Your task to perform on an android device: Go to eBay Image 0: 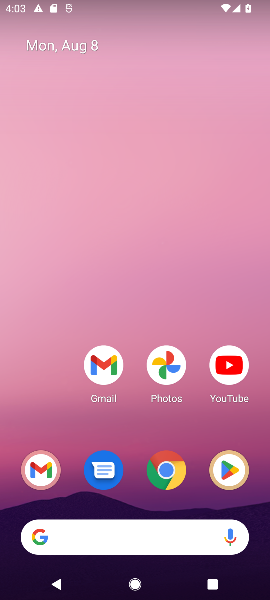
Step 0: press home button
Your task to perform on an android device: Go to eBay Image 1: 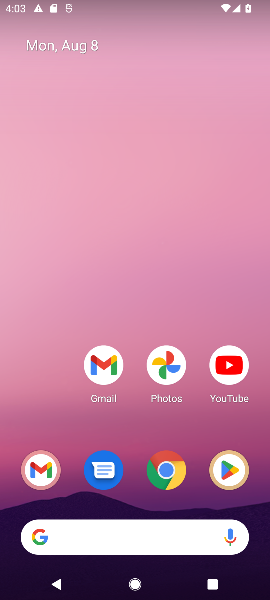
Step 1: drag from (58, 319) to (67, 130)
Your task to perform on an android device: Go to eBay Image 2: 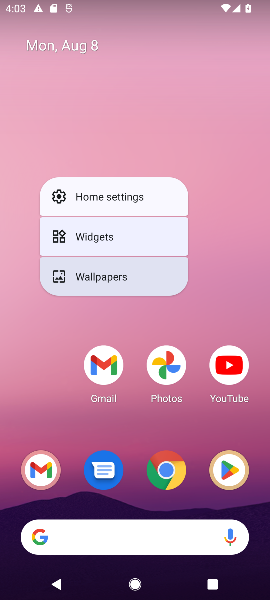
Step 2: click (245, 272)
Your task to perform on an android device: Go to eBay Image 3: 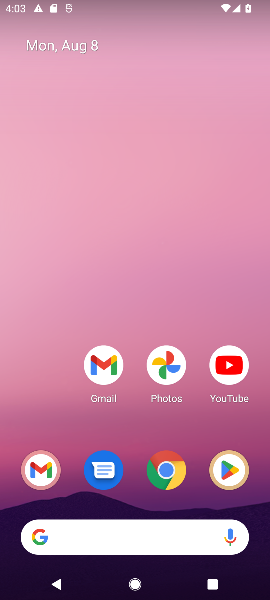
Step 3: drag from (48, 421) to (63, 69)
Your task to perform on an android device: Go to eBay Image 4: 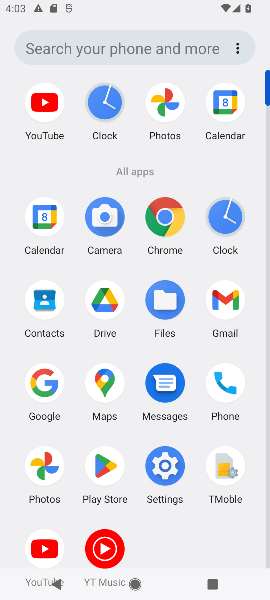
Step 4: click (161, 221)
Your task to perform on an android device: Go to eBay Image 5: 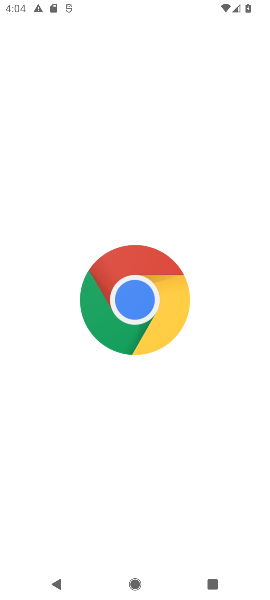
Step 5: task complete